Your task to perform on an android device: Open Yahoo.com Image 0: 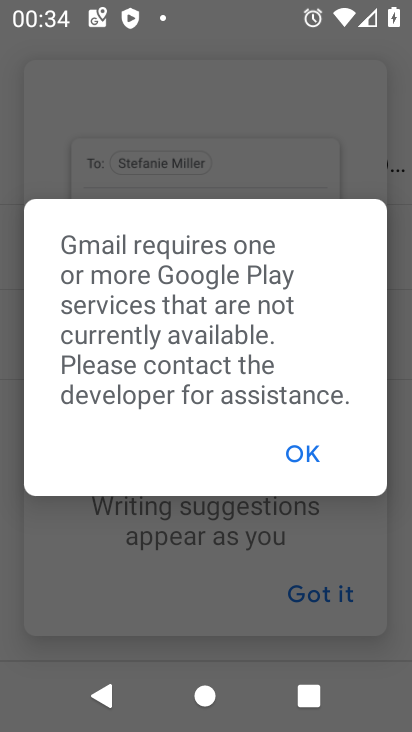
Step 0: press home button
Your task to perform on an android device: Open Yahoo.com Image 1: 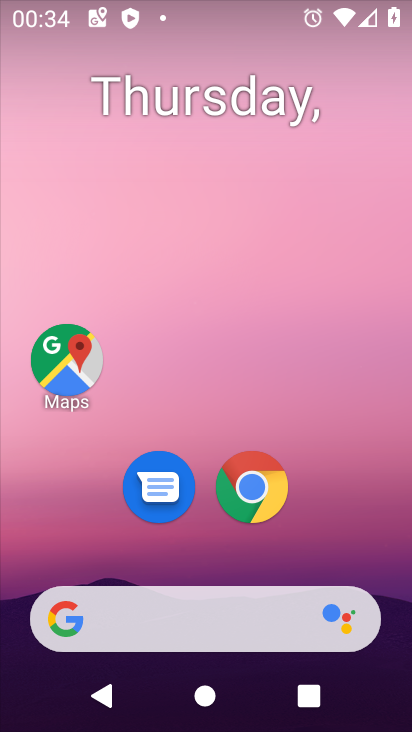
Step 1: click (263, 492)
Your task to perform on an android device: Open Yahoo.com Image 2: 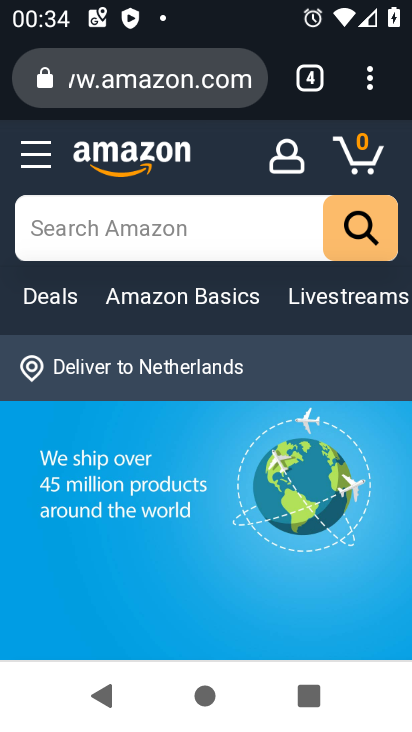
Step 2: click (118, 83)
Your task to perform on an android device: Open Yahoo.com Image 3: 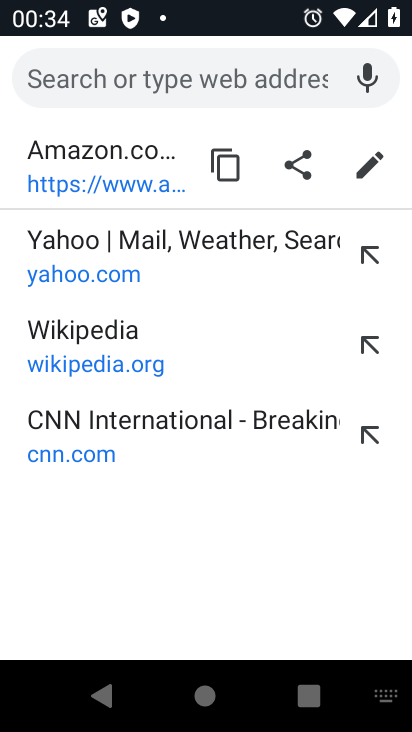
Step 3: click (58, 280)
Your task to perform on an android device: Open Yahoo.com Image 4: 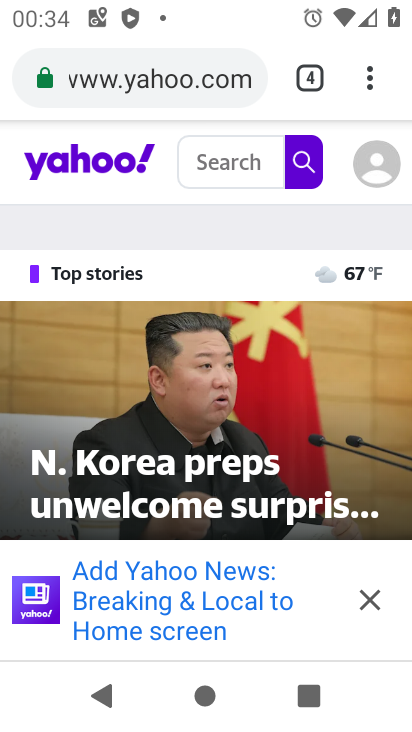
Step 4: task complete